Your task to perform on an android device: Go to ESPN.com Image 0: 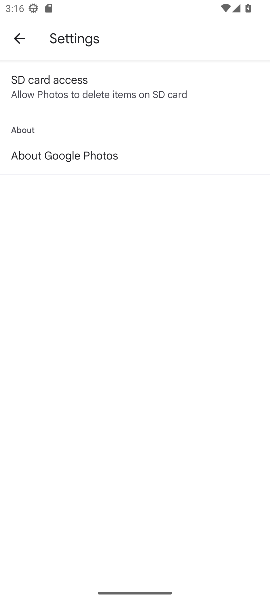
Step 0: click (20, 34)
Your task to perform on an android device: Go to ESPN.com Image 1: 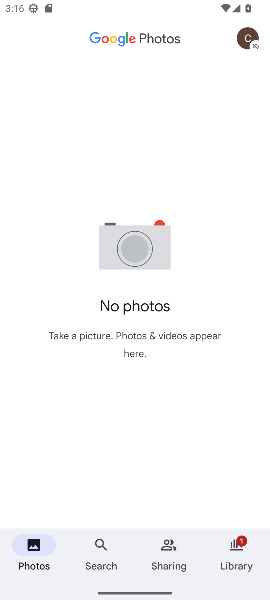
Step 1: press back button
Your task to perform on an android device: Go to ESPN.com Image 2: 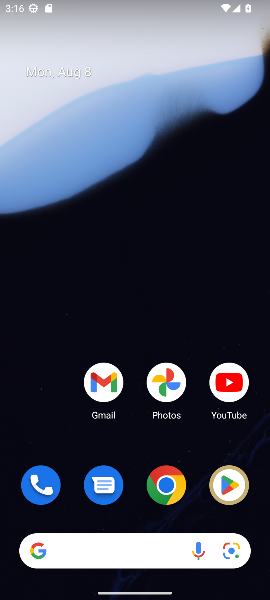
Step 2: drag from (156, 507) to (98, 115)
Your task to perform on an android device: Go to ESPN.com Image 3: 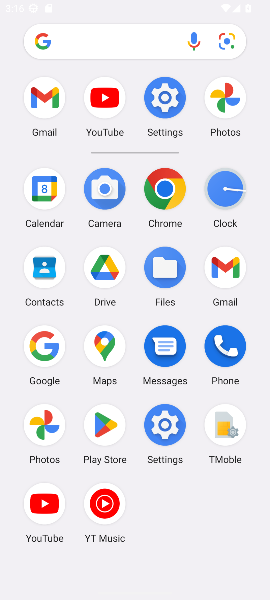
Step 3: drag from (157, 379) to (105, 20)
Your task to perform on an android device: Go to ESPN.com Image 4: 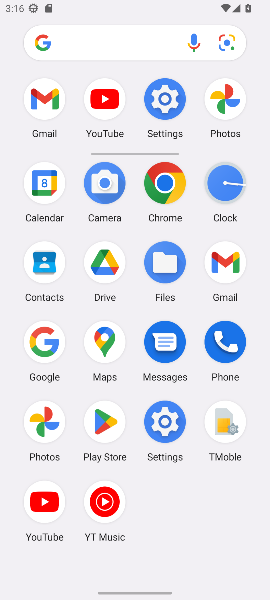
Step 4: drag from (132, 331) to (61, 56)
Your task to perform on an android device: Go to ESPN.com Image 5: 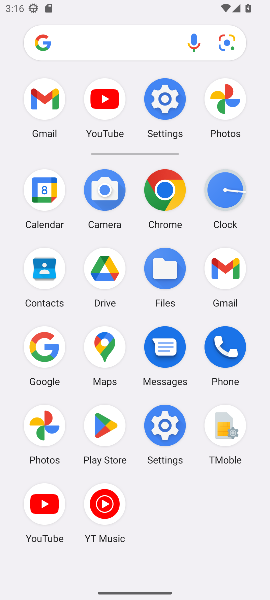
Step 5: click (145, 180)
Your task to perform on an android device: Go to ESPN.com Image 6: 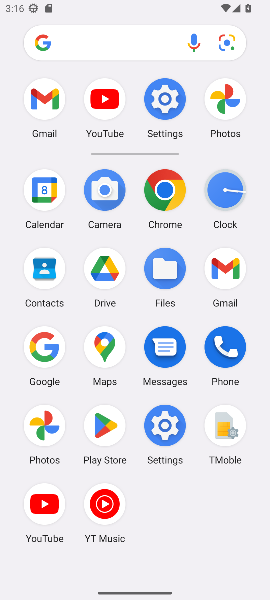
Step 6: click (147, 183)
Your task to perform on an android device: Go to ESPN.com Image 7: 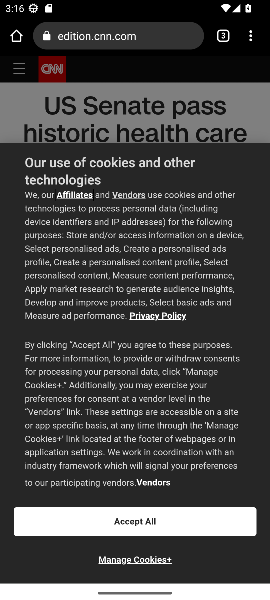
Step 7: drag from (249, 39) to (108, 193)
Your task to perform on an android device: Go to ESPN.com Image 8: 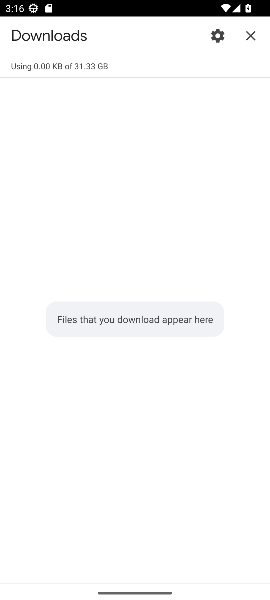
Step 8: click (247, 25)
Your task to perform on an android device: Go to ESPN.com Image 9: 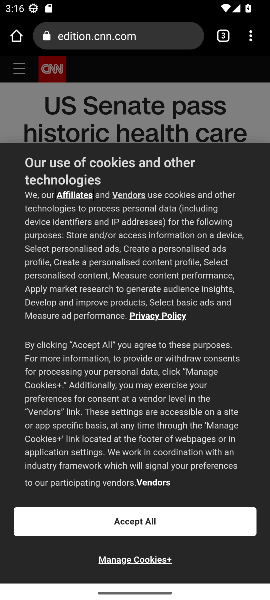
Step 9: drag from (254, 29) to (133, 461)
Your task to perform on an android device: Go to ESPN.com Image 10: 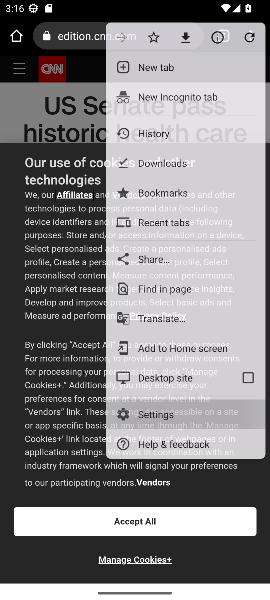
Step 10: click (129, 462)
Your task to perform on an android device: Go to ESPN.com Image 11: 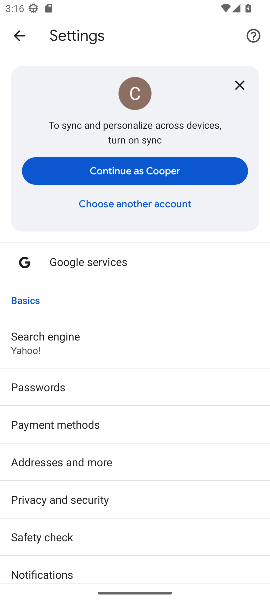
Step 11: click (12, 29)
Your task to perform on an android device: Go to ESPN.com Image 12: 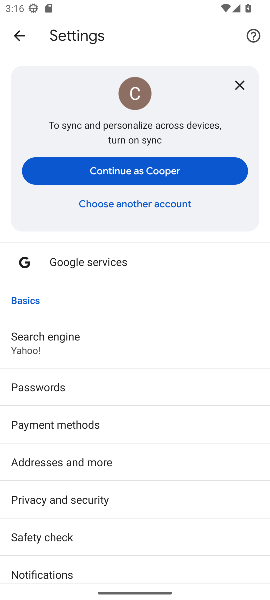
Step 12: click (13, 37)
Your task to perform on an android device: Go to ESPN.com Image 13: 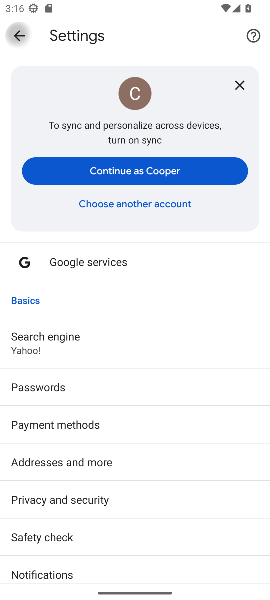
Step 13: click (13, 37)
Your task to perform on an android device: Go to ESPN.com Image 14: 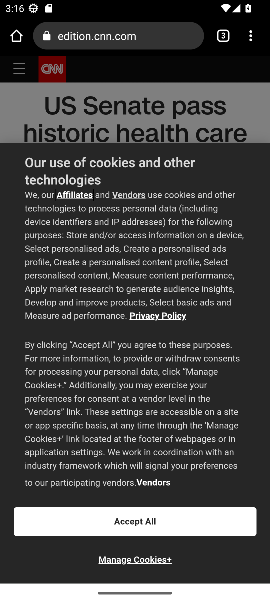
Step 14: click (251, 33)
Your task to perform on an android device: Go to ESPN.com Image 15: 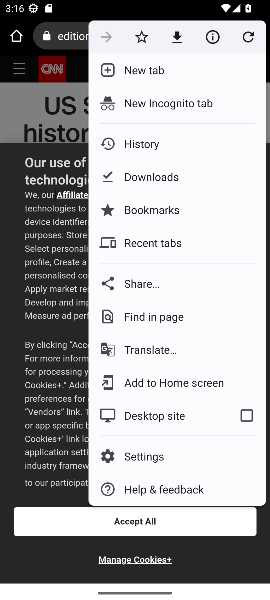
Step 15: click (133, 74)
Your task to perform on an android device: Go to ESPN.com Image 16: 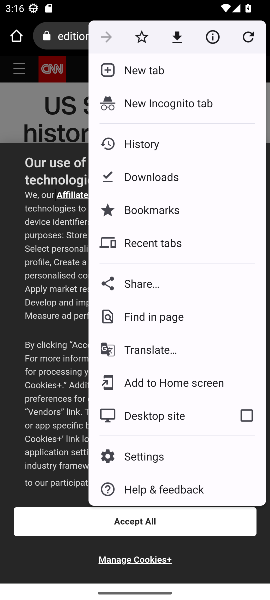
Step 16: click (133, 74)
Your task to perform on an android device: Go to ESPN.com Image 17: 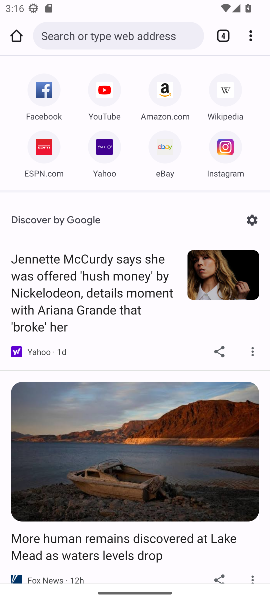
Step 17: click (44, 163)
Your task to perform on an android device: Go to ESPN.com Image 18: 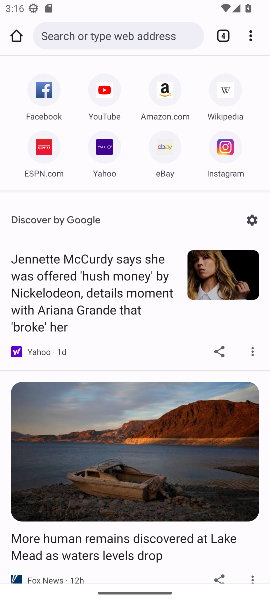
Step 18: click (44, 163)
Your task to perform on an android device: Go to ESPN.com Image 19: 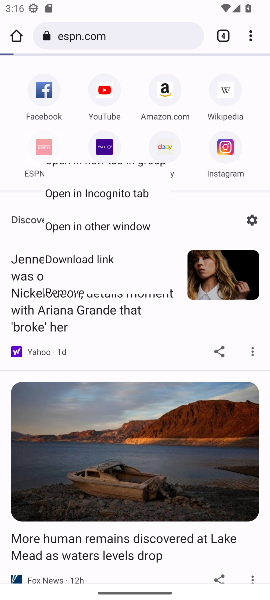
Step 19: click (44, 163)
Your task to perform on an android device: Go to ESPN.com Image 20: 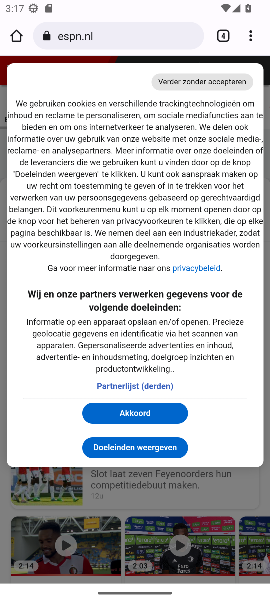
Step 20: task complete